Your task to perform on an android device: Open the stopwatch Image 0: 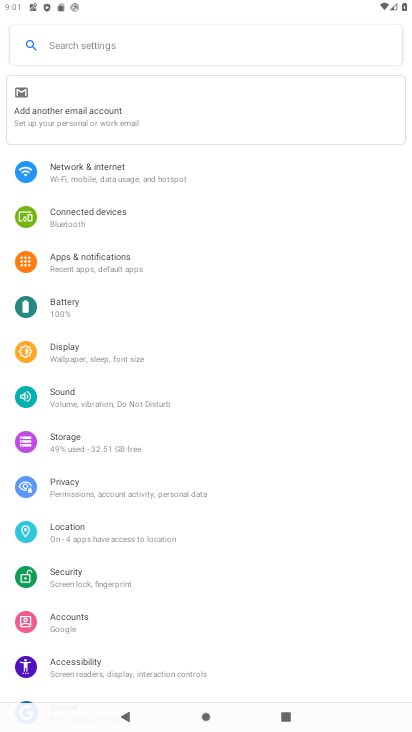
Step 0: press home button
Your task to perform on an android device: Open the stopwatch Image 1: 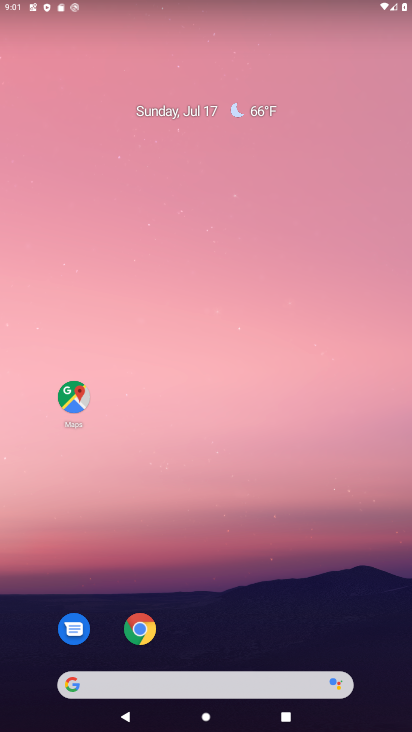
Step 1: drag from (229, 642) to (284, 67)
Your task to perform on an android device: Open the stopwatch Image 2: 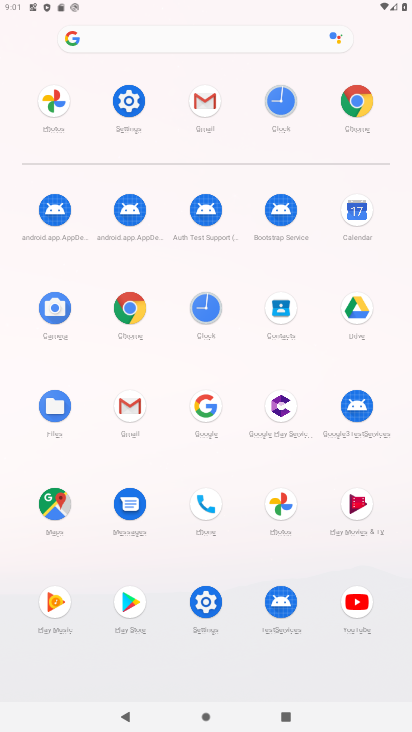
Step 2: click (206, 302)
Your task to perform on an android device: Open the stopwatch Image 3: 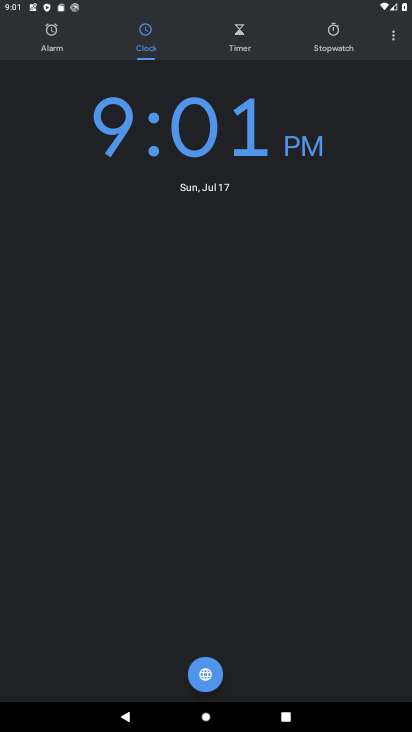
Step 3: click (332, 34)
Your task to perform on an android device: Open the stopwatch Image 4: 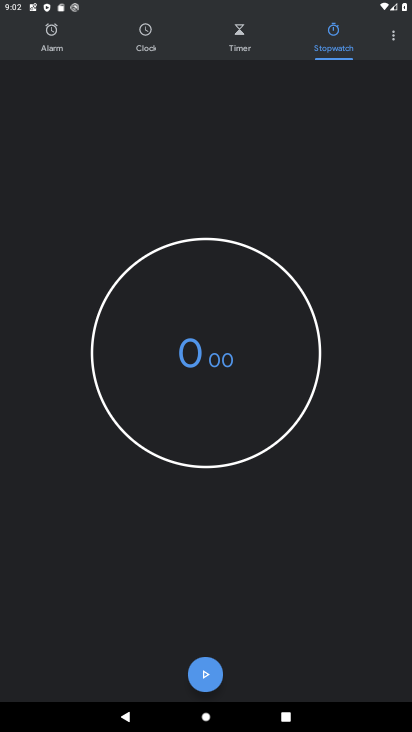
Step 4: click (202, 668)
Your task to perform on an android device: Open the stopwatch Image 5: 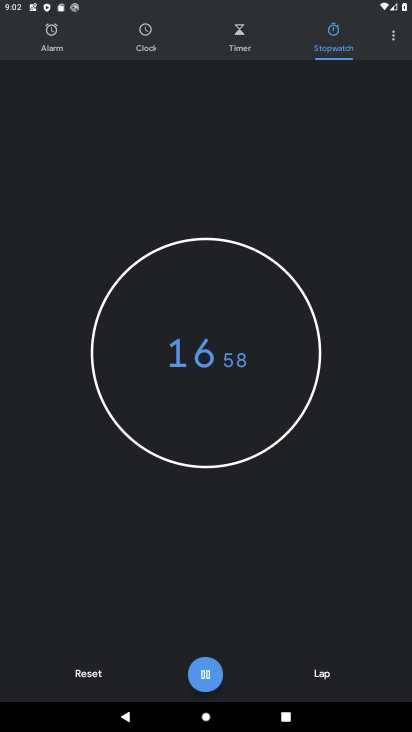
Step 5: task complete